Your task to perform on an android device: change alarm snooze length Image 0: 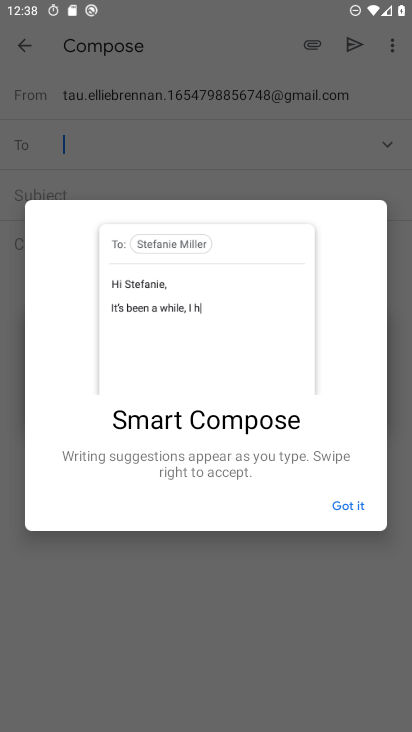
Step 0: press home button
Your task to perform on an android device: change alarm snooze length Image 1: 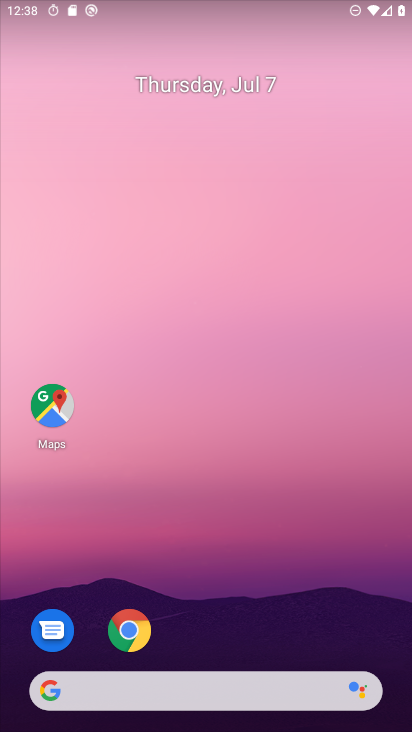
Step 1: drag from (223, 593) to (256, 257)
Your task to perform on an android device: change alarm snooze length Image 2: 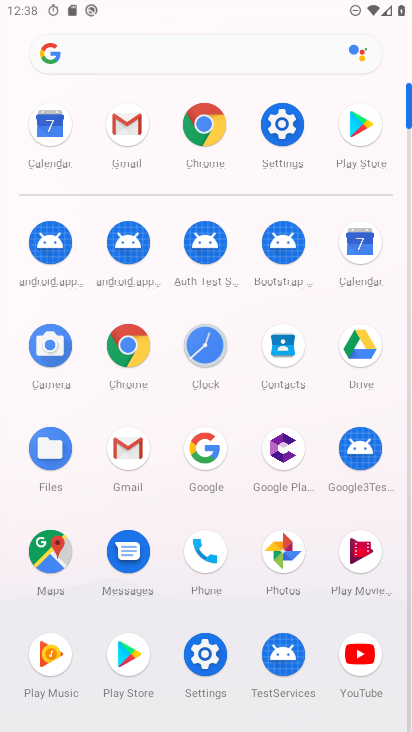
Step 2: click (209, 375)
Your task to perform on an android device: change alarm snooze length Image 3: 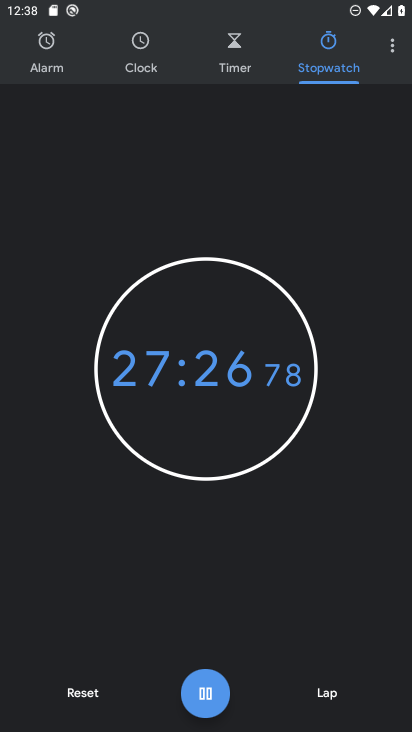
Step 3: click (393, 45)
Your task to perform on an android device: change alarm snooze length Image 4: 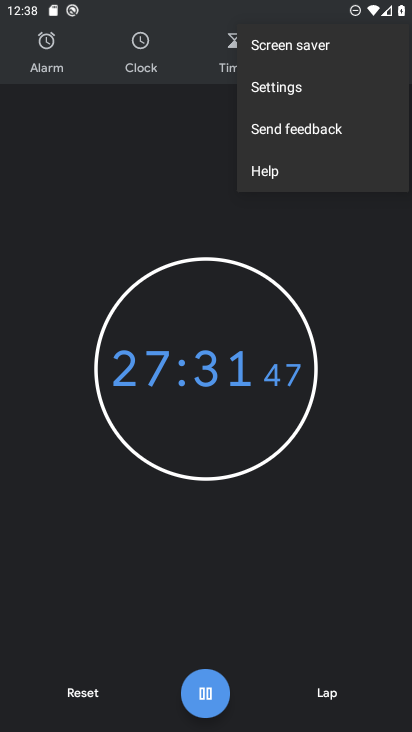
Step 4: click (303, 103)
Your task to perform on an android device: change alarm snooze length Image 5: 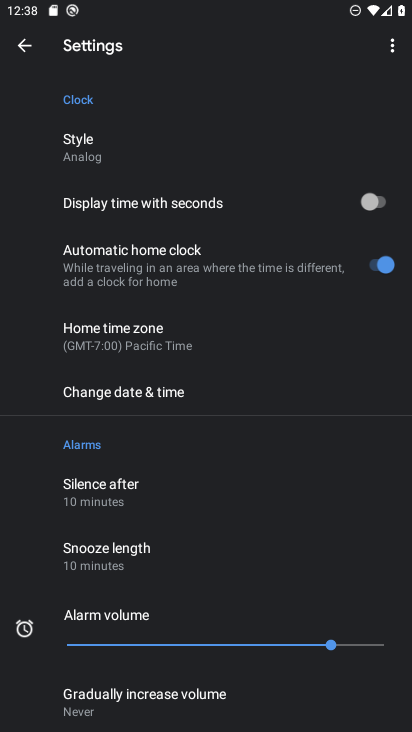
Step 5: drag from (104, 391) to (127, 231)
Your task to perform on an android device: change alarm snooze length Image 6: 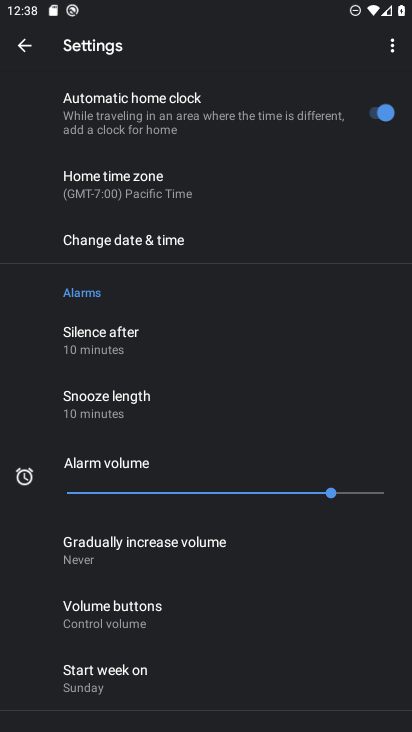
Step 6: click (114, 413)
Your task to perform on an android device: change alarm snooze length Image 7: 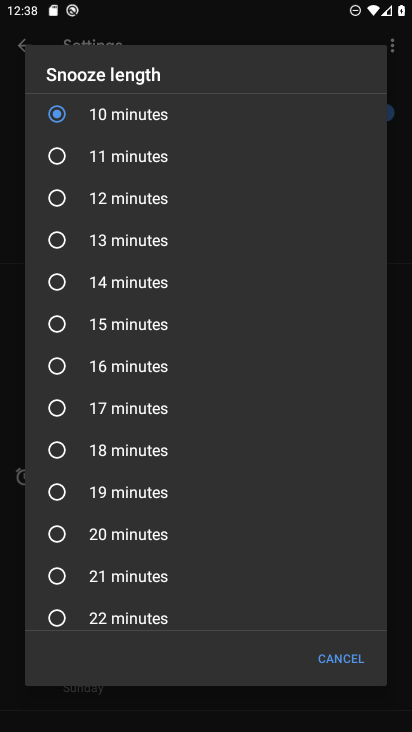
Step 7: drag from (151, 192) to (153, 412)
Your task to perform on an android device: change alarm snooze length Image 8: 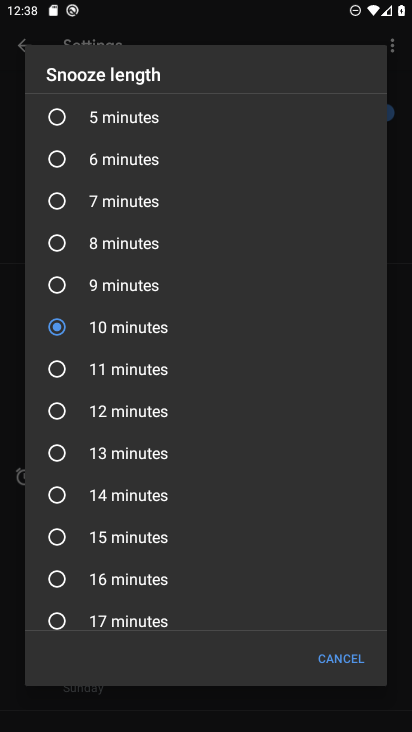
Step 8: click (64, 117)
Your task to perform on an android device: change alarm snooze length Image 9: 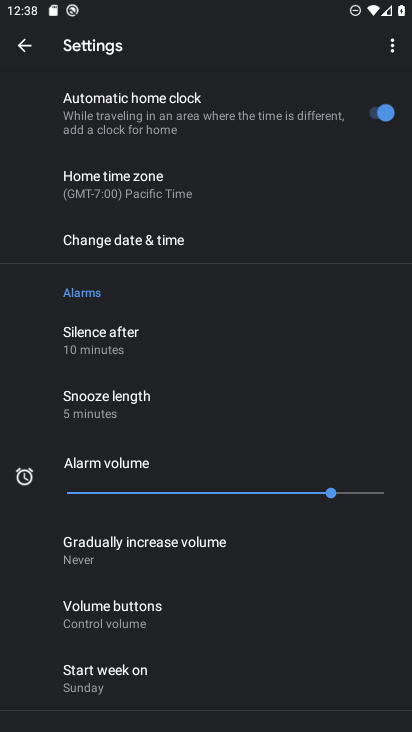
Step 9: task complete